Your task to perform on an android device: Do I have any events this weekend? Image 0: 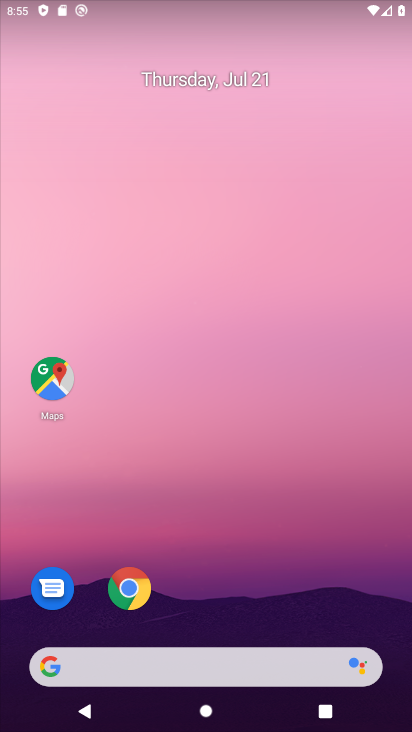
Step 0: drag from (359, 655) to (70, 15)
Your task to perform on an android device: Do I have any events this weekend? Image 1: 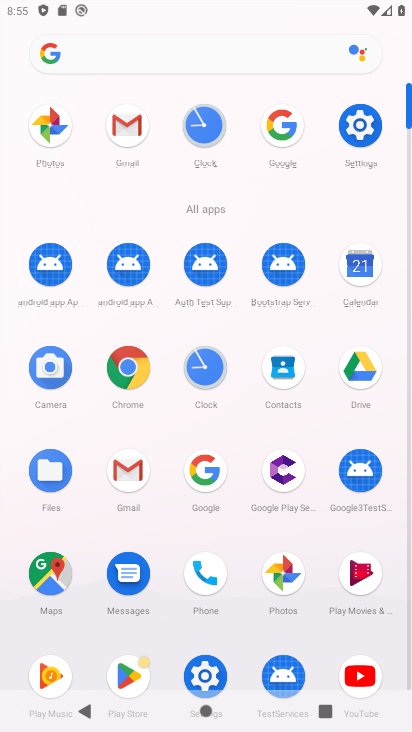
Step 1: click (370, 274)
Your task to perform on an android device: Do I have any events this weekend? Image 2: 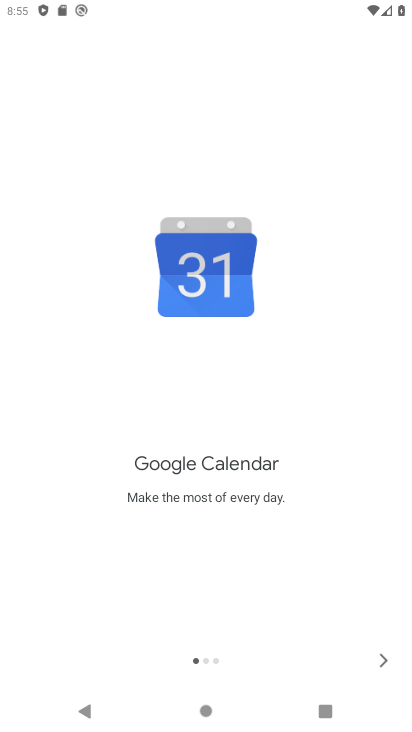
Step 2: click (387, 647)
Your task to perform on an android device: Do I have any events this weekend? Image 3: 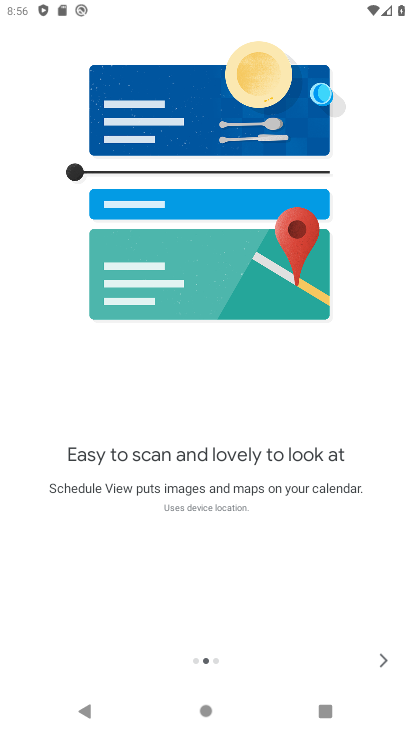
Step 3: click (384, 648)
Your task to perform on an android device: Do I have any events this weekend? Image 4: 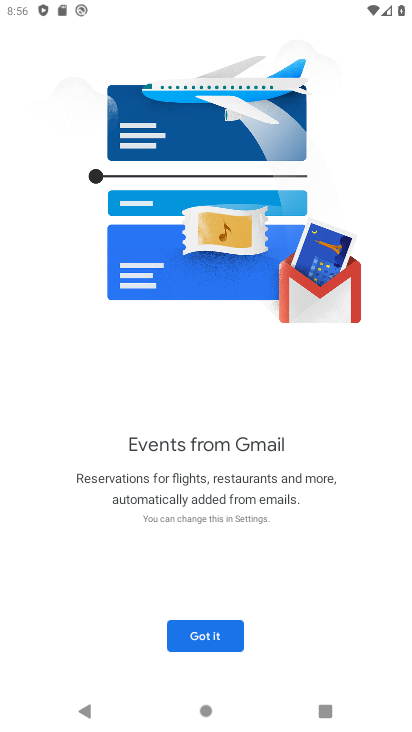
Step 4: click (384, 649)
Your task to perform on an android device: Do I have any events this weekend? Image 5: 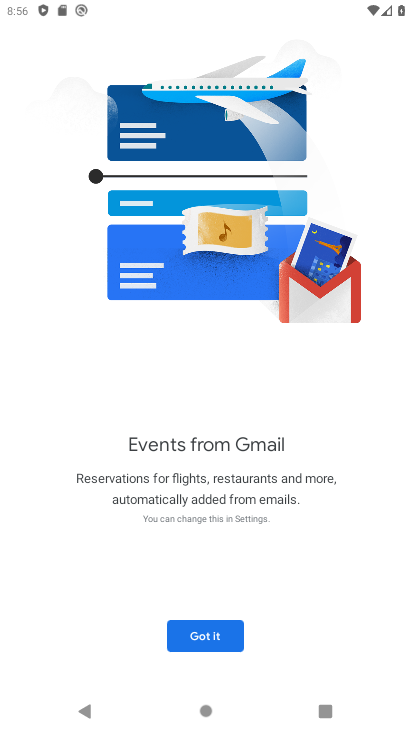
Step 5: click (201, 629)
Your task to perform on an android device: Do I have any events this weekend? Image 6: 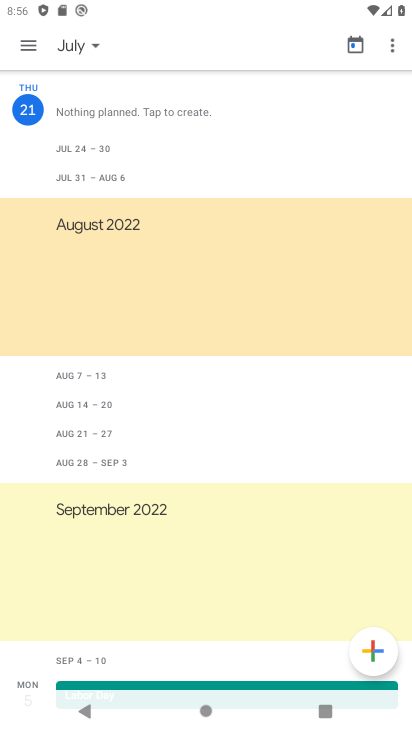
Step 6: click (27, 43)
Your task to perform on an android device: Do I have any events this weekend? Image 7: 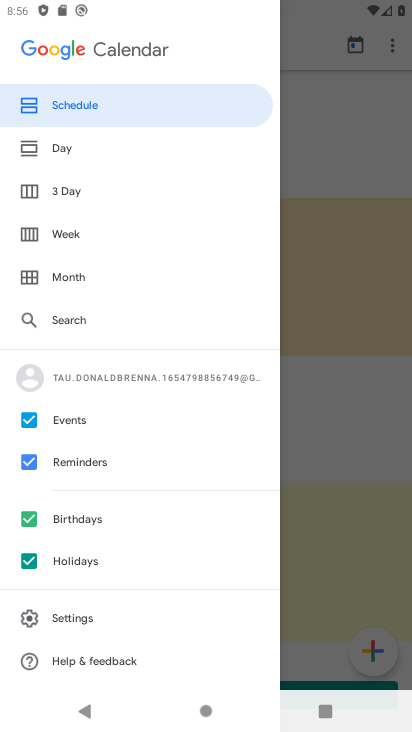
Step 7: click (55, 227)
Your task to perform on an android device: Do I have any events this weekend? Image 8: 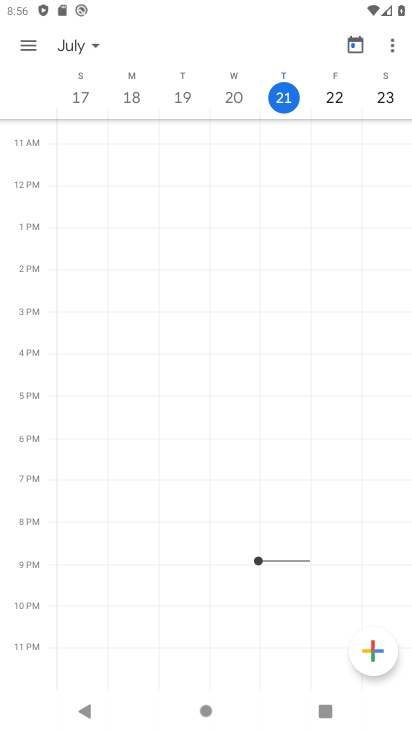
Step 8: click (16, 36)
Your task to perform on an android device: Do I have any events this weekend? Image 9: 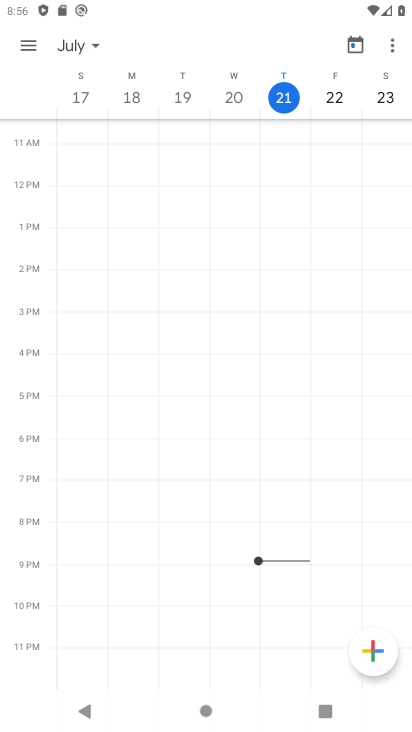
Step 9: click (22, 45)
Your task to perform on an android device: Do I have any events this weekend? Image 10: 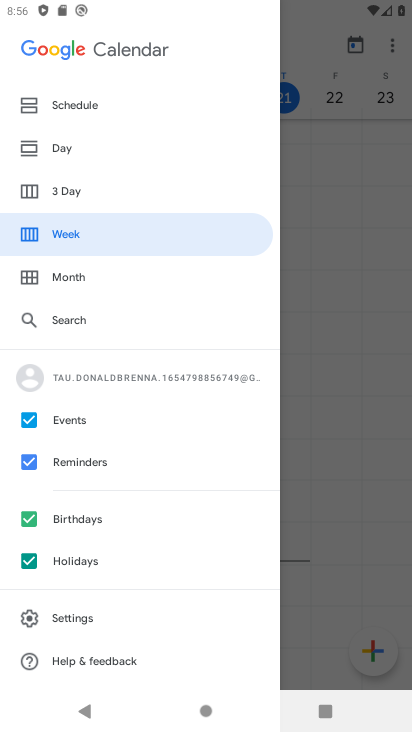
Step 10: click (74, 99)
Your task to perform on an android device: Do I have any events this weekend? Image 11: 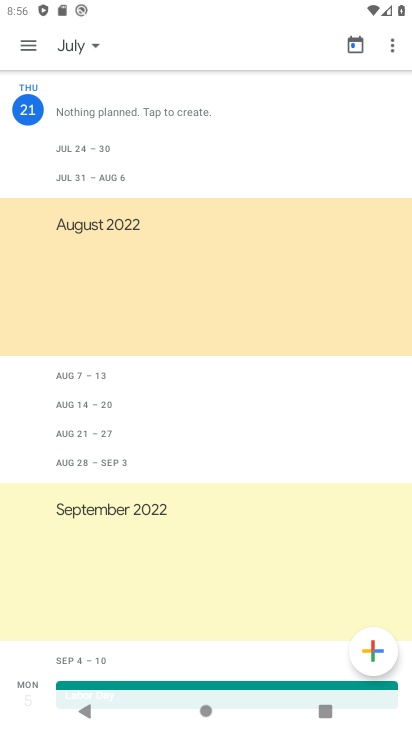
Step 11: task complete